Your task to perform on an android device: set the stopwatch Image 0: 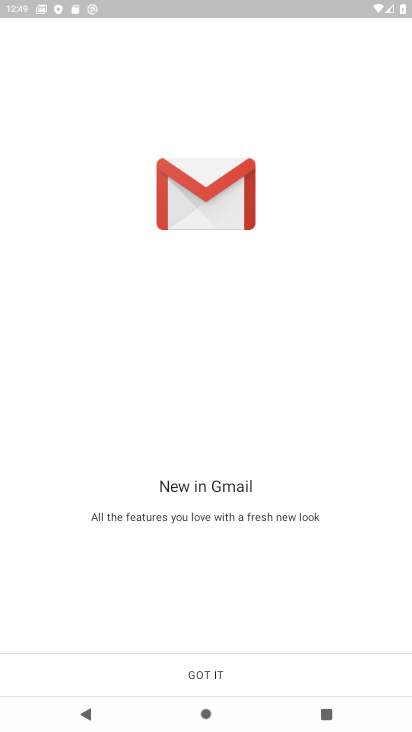
Step 0: press home button
Your task to perform on an android device: set the stopwatch Image 1: 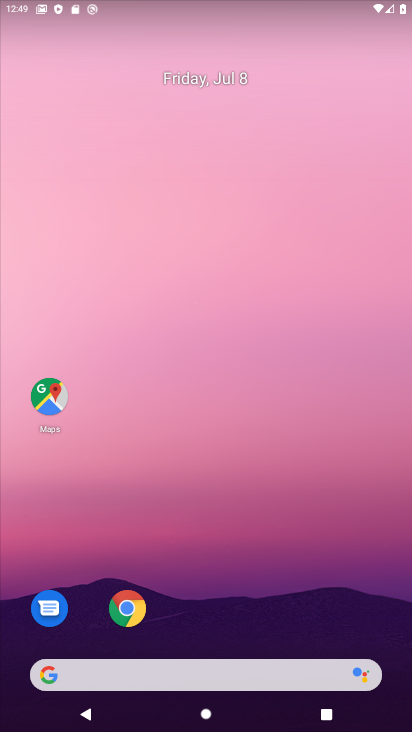
Step 1: drag from (385, 630) to (337, 190)
Your task to perform on an android device: set the stopwatch Image 2: 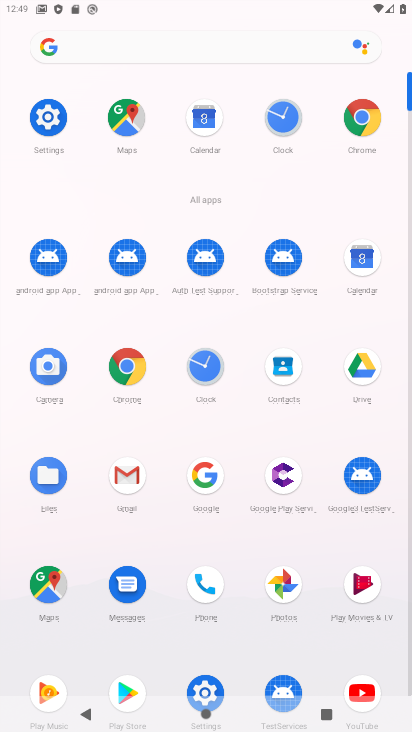
Step 2: click (200, 363)
Your task to perform on an android device: set the stopwatch Image 3: 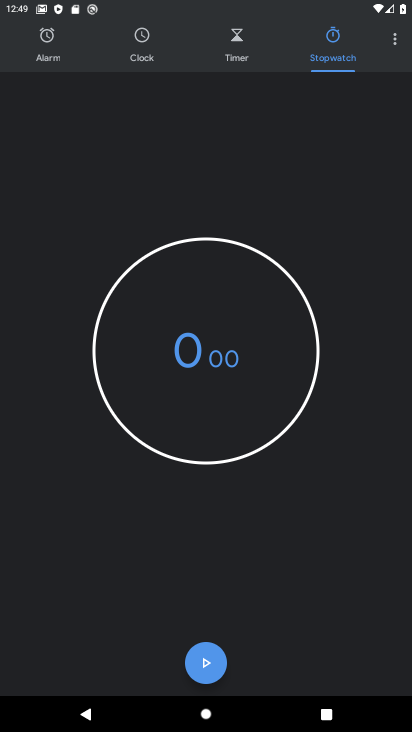
Step 3: task complete